Your task to perform on an android device: Go to Android settings Image 0: 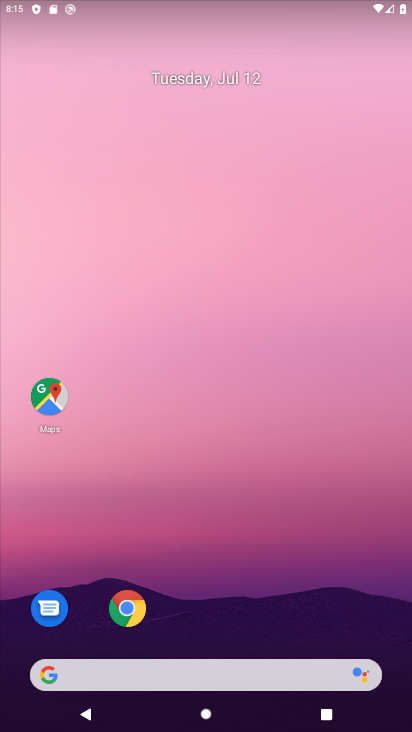
Step 0: drag from (346, 562) to (345, 53)
Your task to perform on an android device: Go to Android settings Image 1: 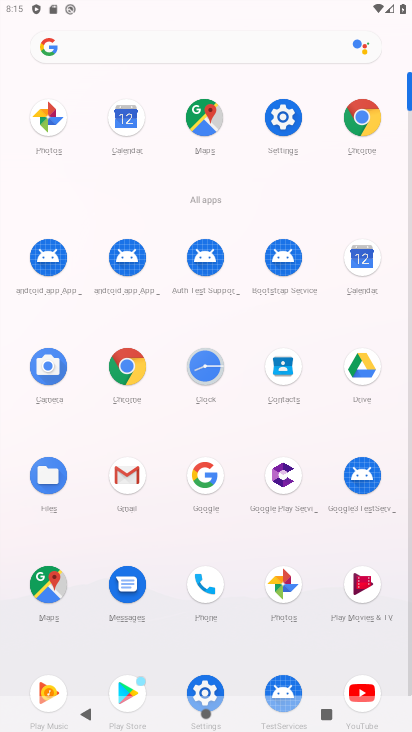
Step 1: click (287, 107)
Your task to perform on an android device: Go to Android settings Image 2: 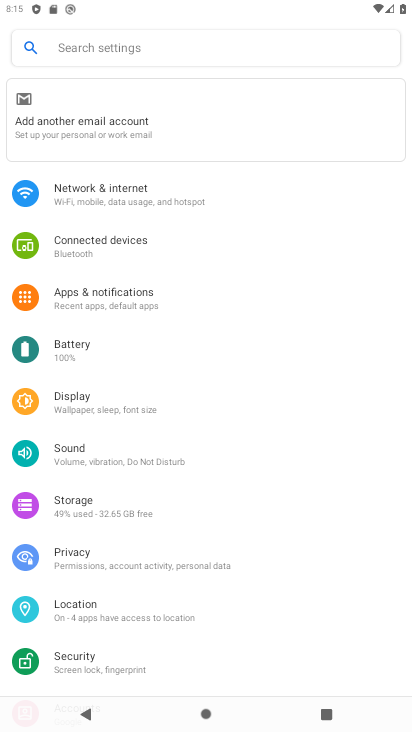
Step 2: drag from (169, 554) to (130, 163)
Your task to perform on an android device: Go to Android settings Image 3: 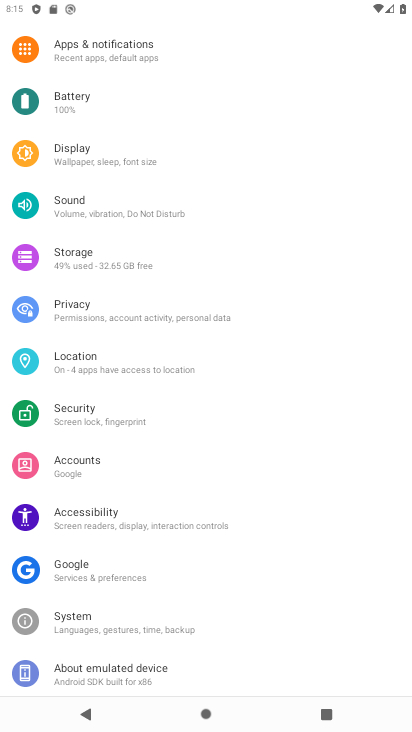
Step 3: click (80, 629)
Your task to perform on an android device: Go to Android settings Image 4: 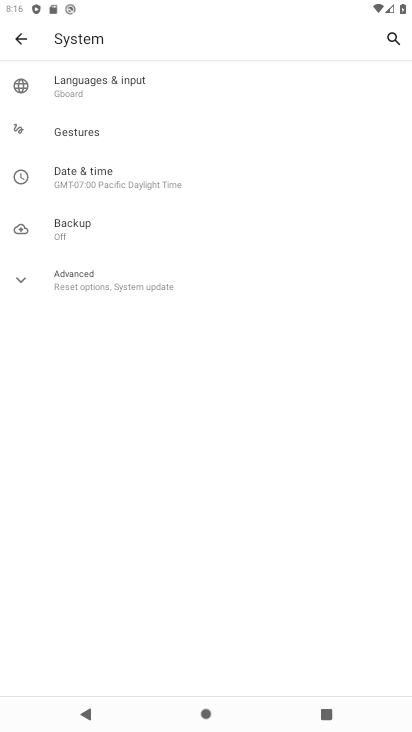
Step 4: task complete